Your task to perform on an android device: visit the assistant section in the google photos Image 0: 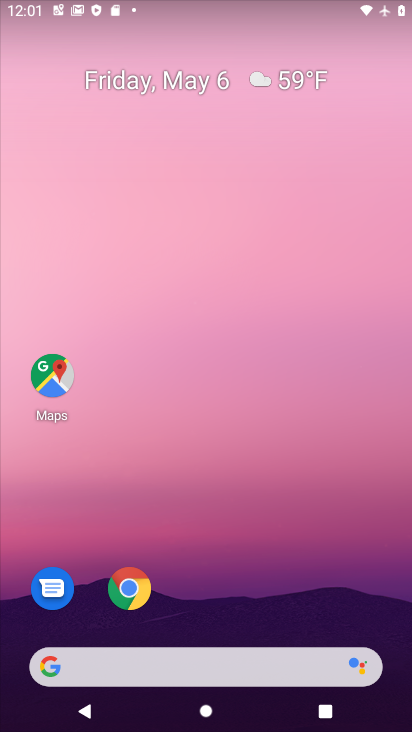
Step 0: drag from (137, 639) to (307, 143)
Your task to perform on an android device: visit the assistant section in the google photos Image 1: 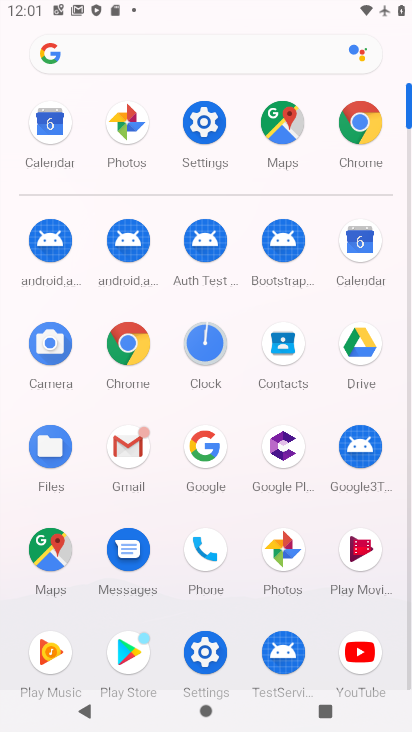
Step 1: click (286, 553)
Your task to perform on an android device: visit the assistant section in the google photos Image 2: 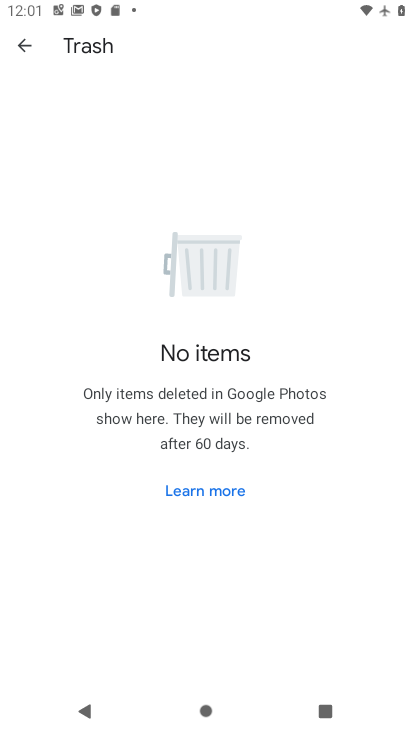
Step 2: click (28, 46)
Your task to perform on an android device: visit the assistant section in the google photos Image 3: 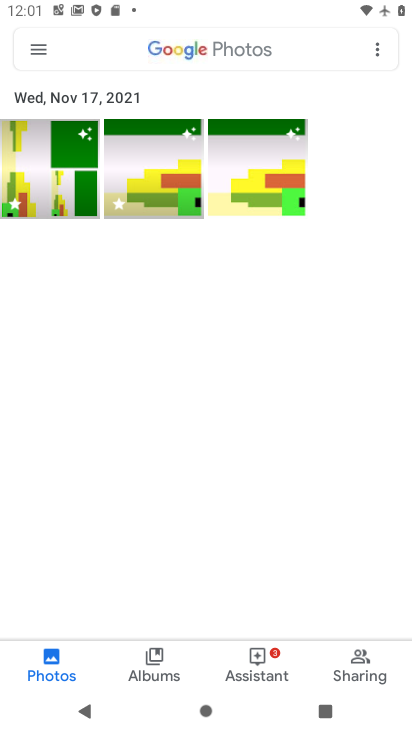
Step 3: click (253, 662)
Your task to perform on an android device: visit the assistant section in the google photos Image 4: 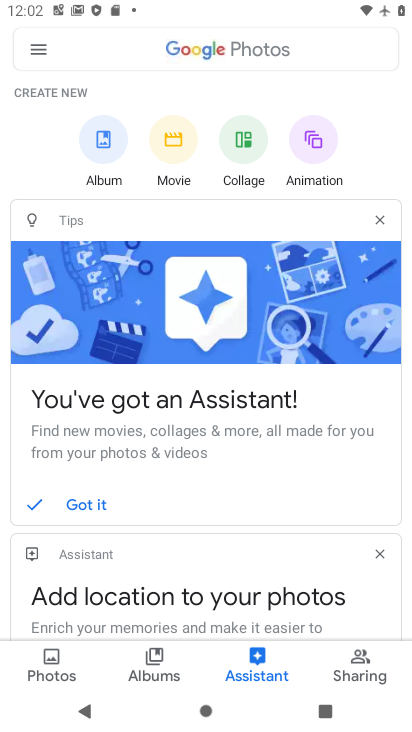
Step 4: task complete